Your task to perform on an android device: Do I have any events today? Image 0: 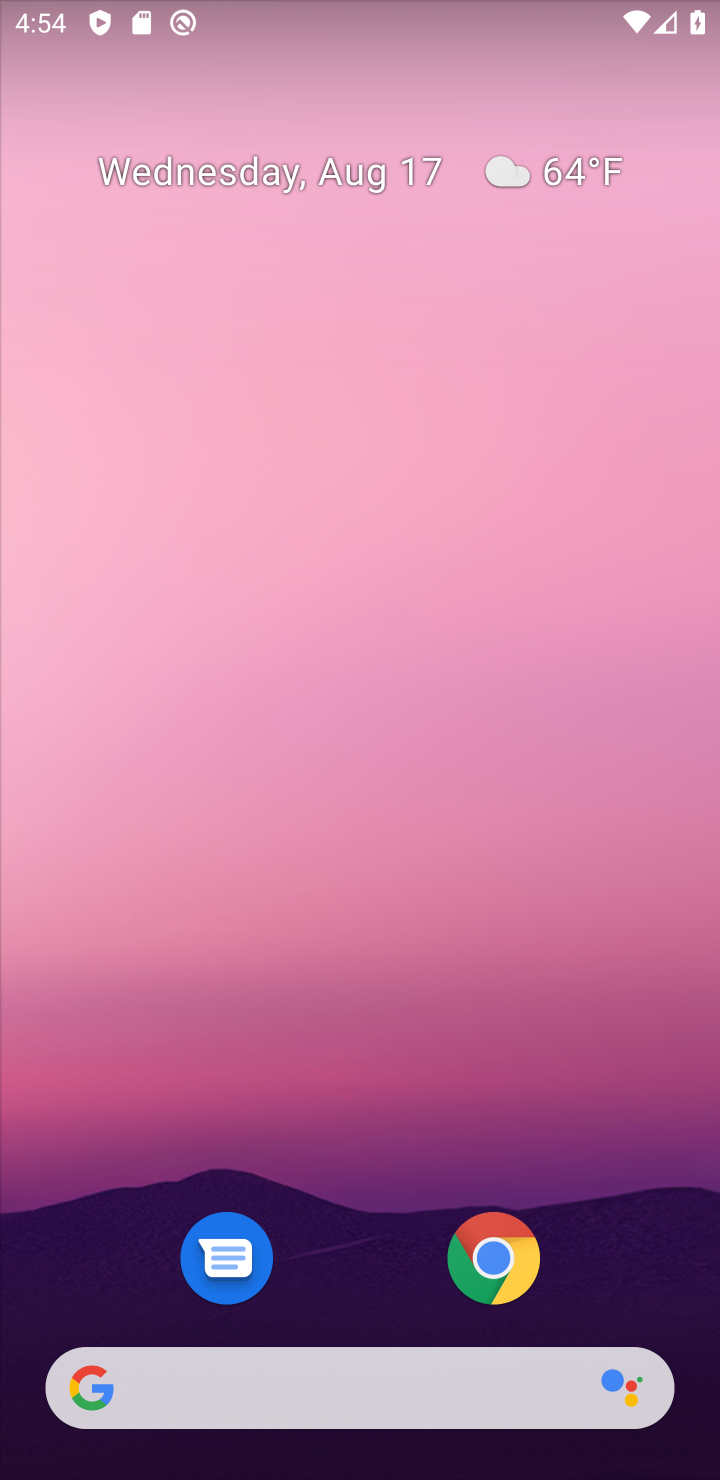
Step 0: click (351, 182)
Your task to perform on an android device: Do I have any events today? Image 1: 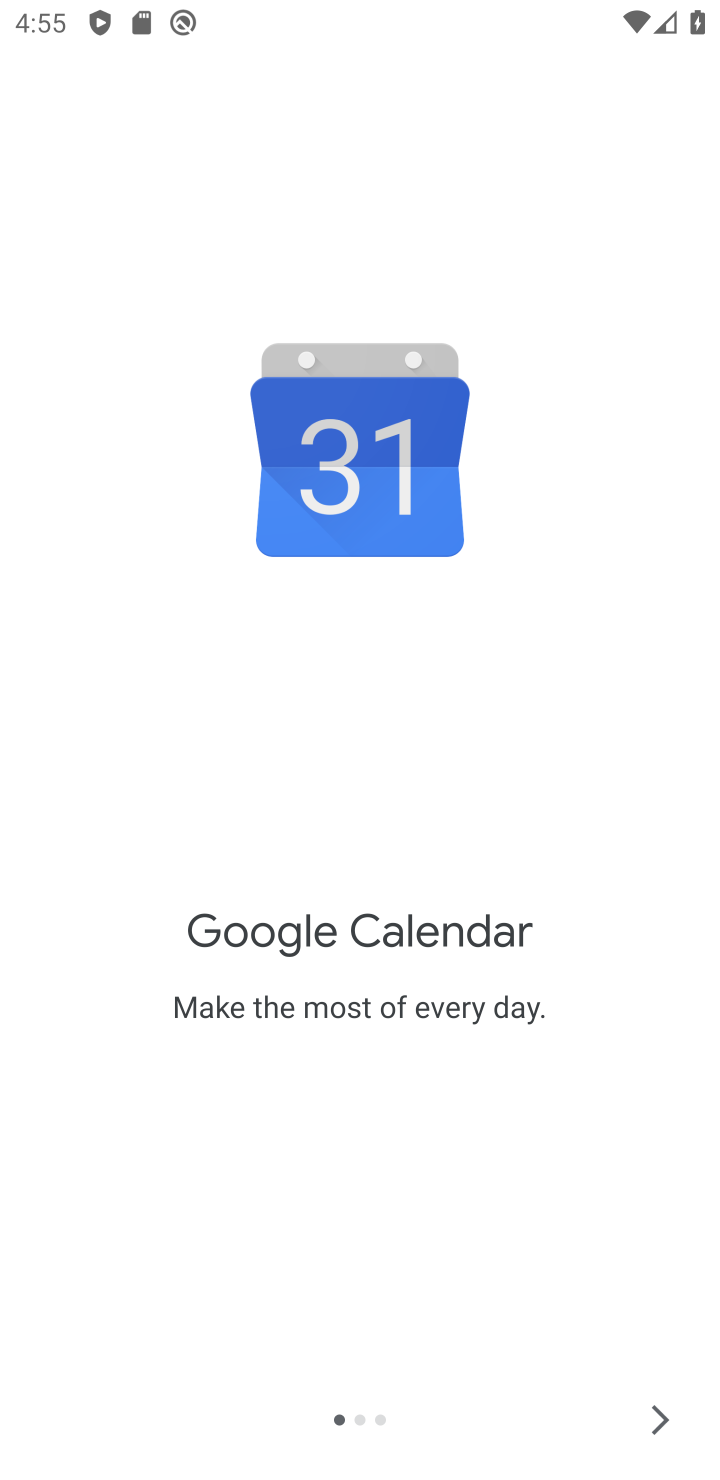
Step 1: click (656, 1403)
Your task to perform on an android device: Do I have any events today? Image 2: 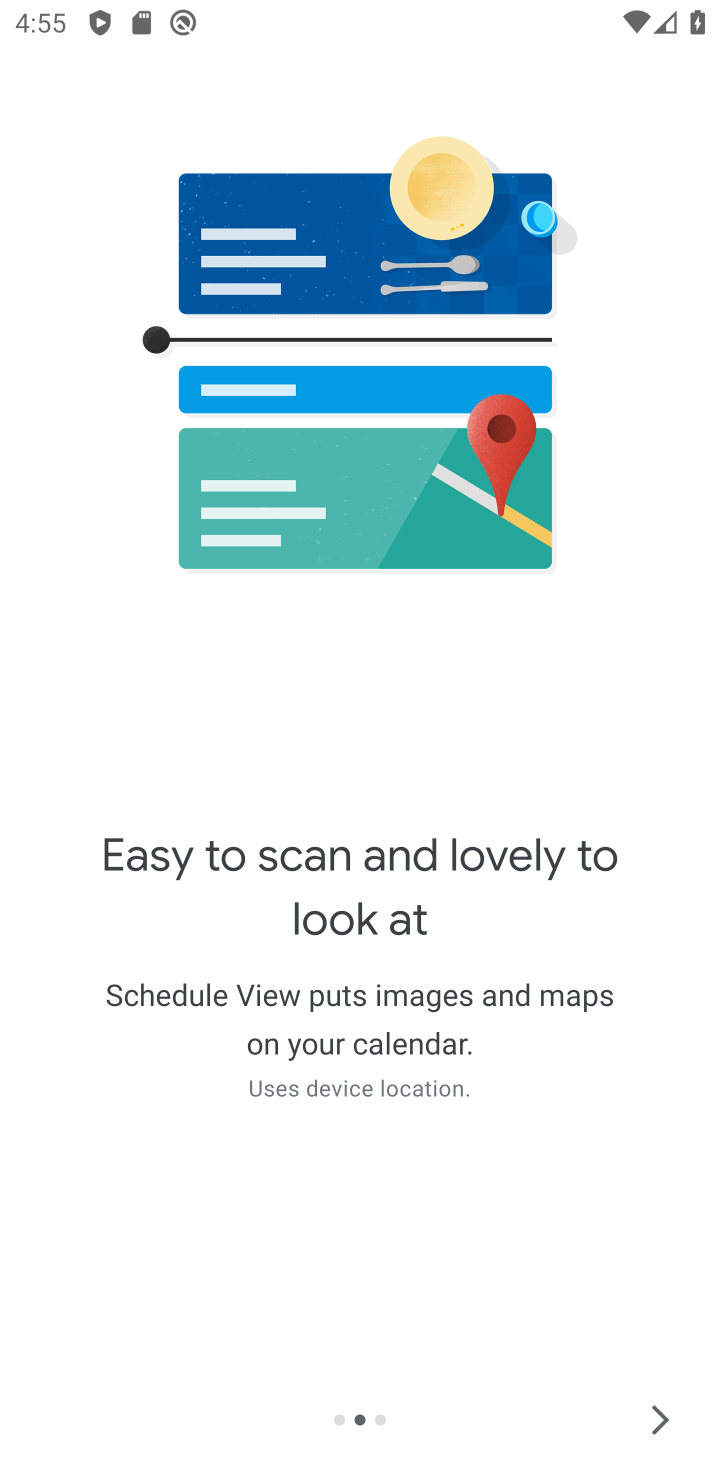
Step 2: click (656, 1401)
Your task to perform on an android device: Do I have any events today? Image 3: 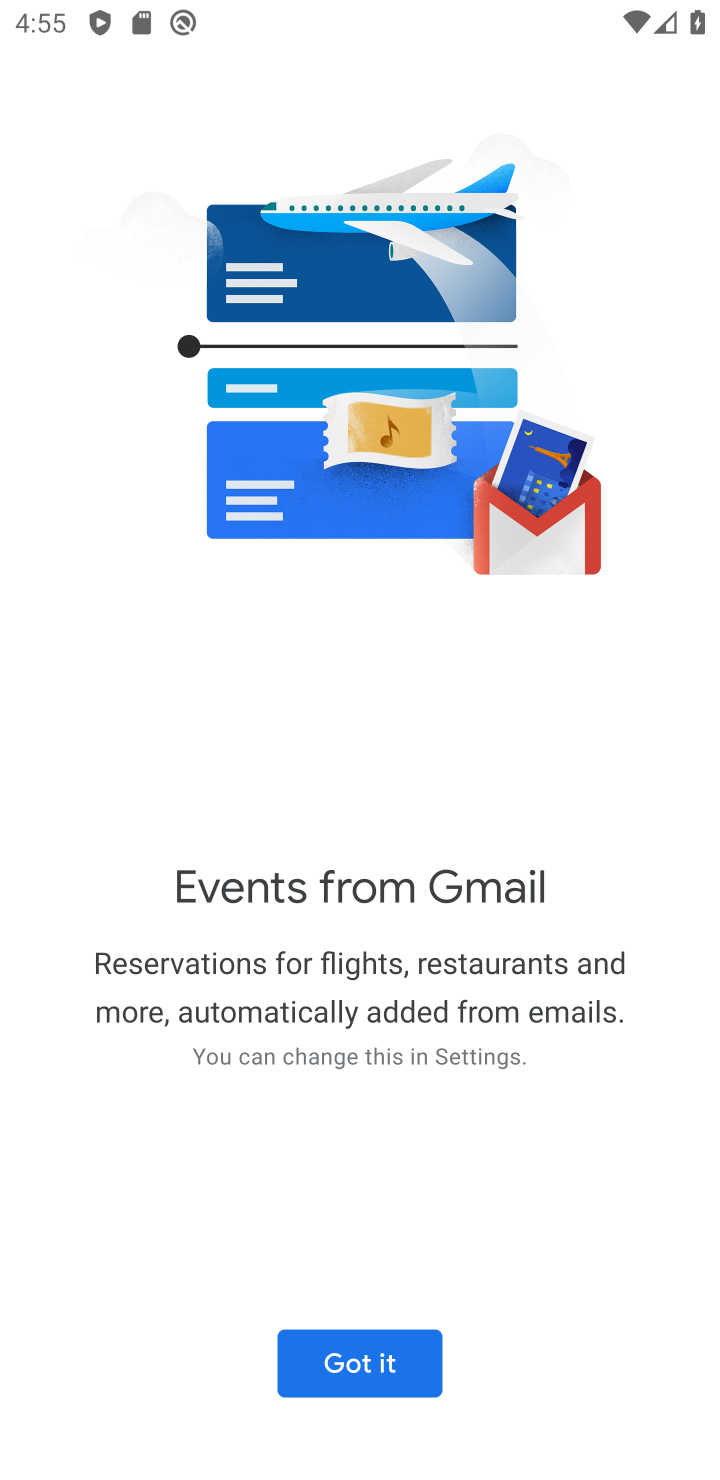
Step 3: click (348, 1376)
Your task to perform on an android device: Do I have any events today? Image 4: 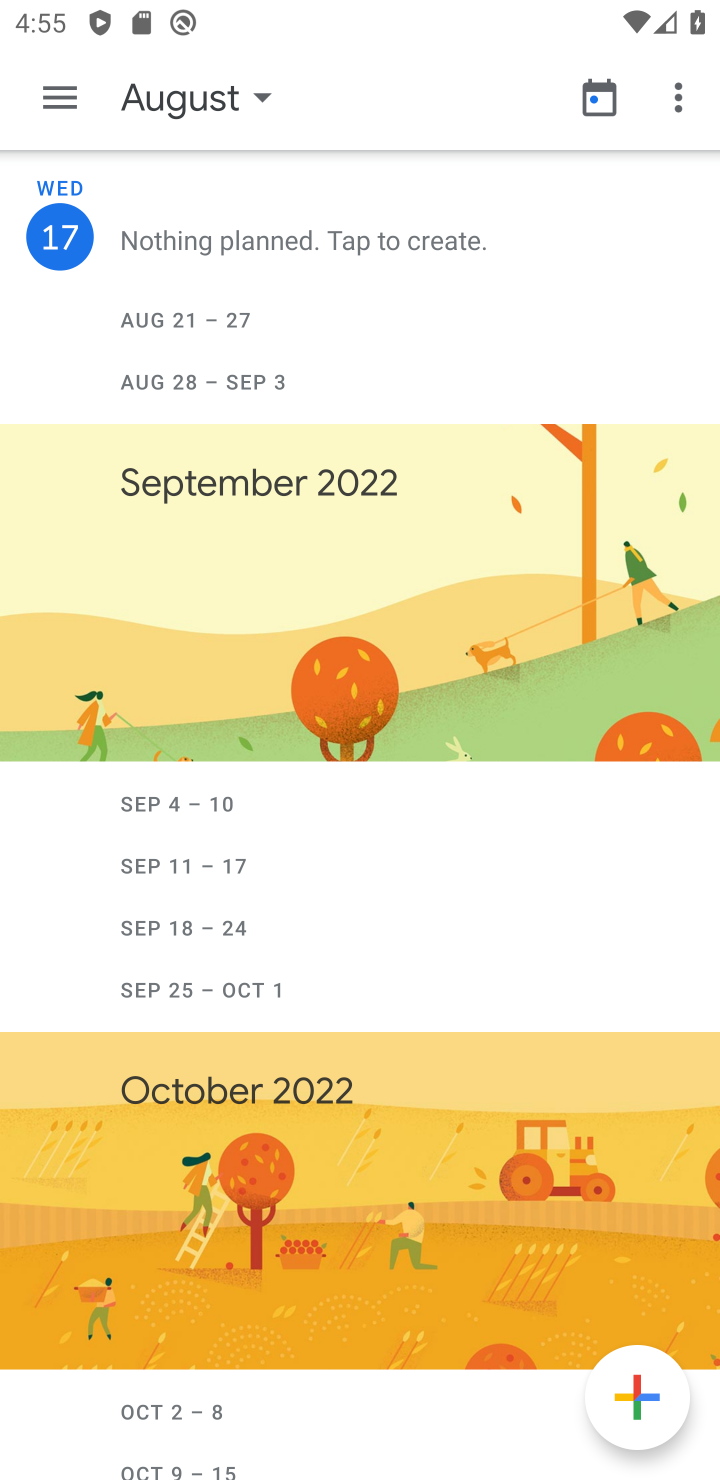
Step 4: task complete